Your task to perform on an android device: make emails show in primary in the gmail app Image 0: 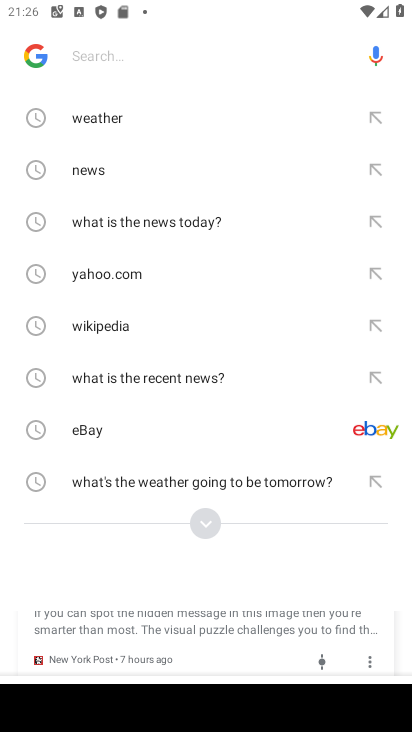
Step 0: press home button
Your task to perform on an android device: make emails show in primary in the gmail app Image 1: 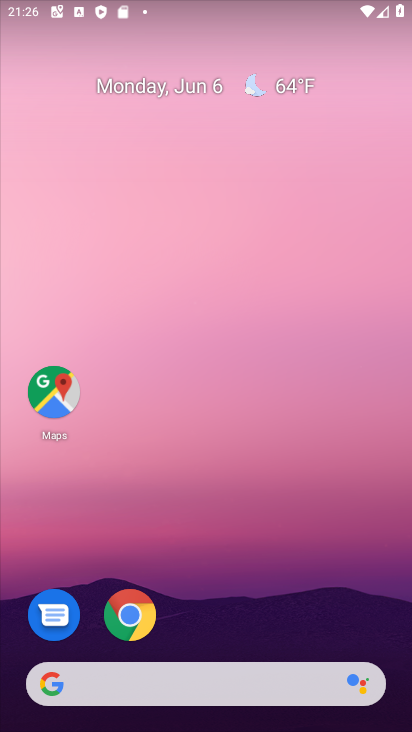
Step 1: drag from (387, 689) to (396, 172)
Your task to perform on an android device: make emails show in primary in the gmail app Image 2: 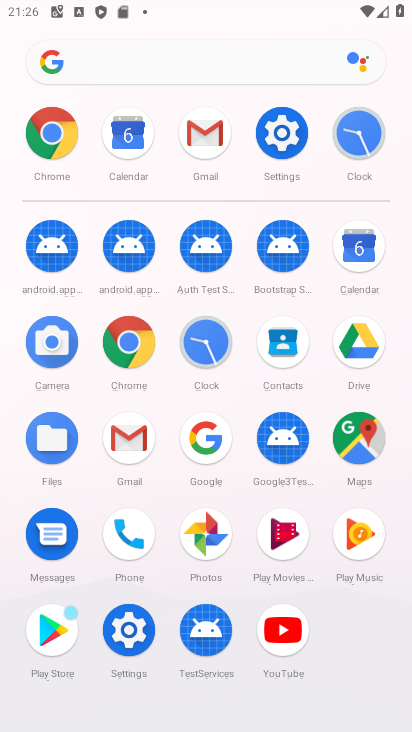
Step 2: click (193, 141)
Your task to perform on an android device: make emails show in primary in the gmail app Image 3: 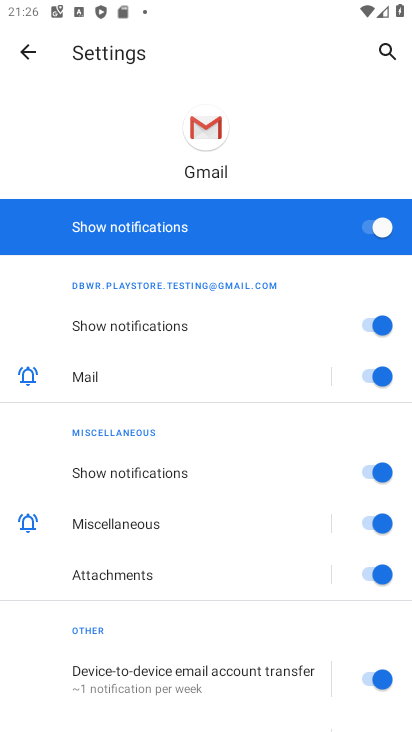
Step 3: drag from (267, 495) to (256, 271)
Your task to perform on an android device: make emails show in primary in the gmail app Image 4: 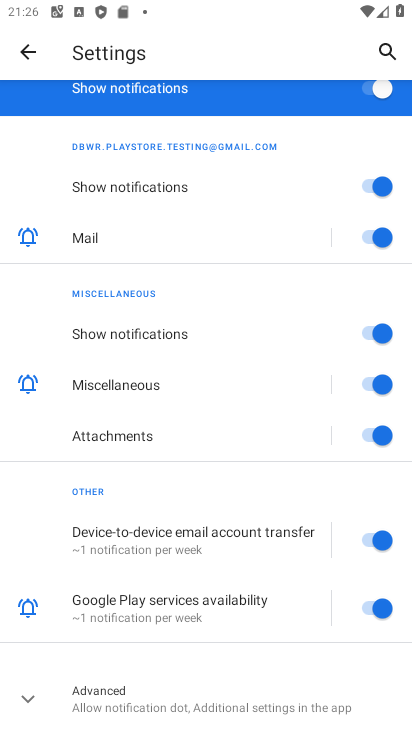
Step 4: drag from (268, 222) to (304, 623)
Your task to perform on an android device: make emails show in primary in the gmail app Image 5: 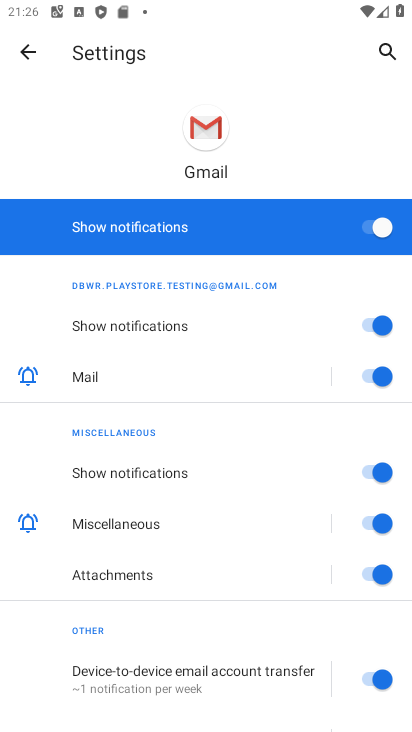
Step 5: click (22, 52)
Your task to perform on an android device: make emails show in primary in the gmail app Image 6: 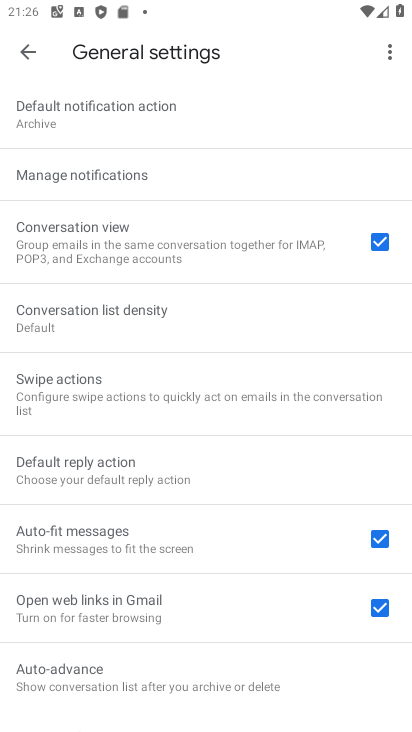
Step 6: click (33, 54)
Your task to perform on an android device: make emails show in primary in the gmail app Image 7: 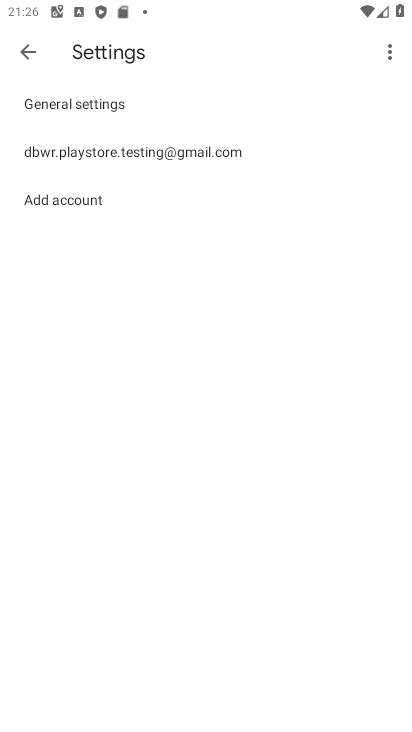
Step 7: click (95, 152)
Your task to perform on an android device: make emails show in primary in the gmail app Image 8: 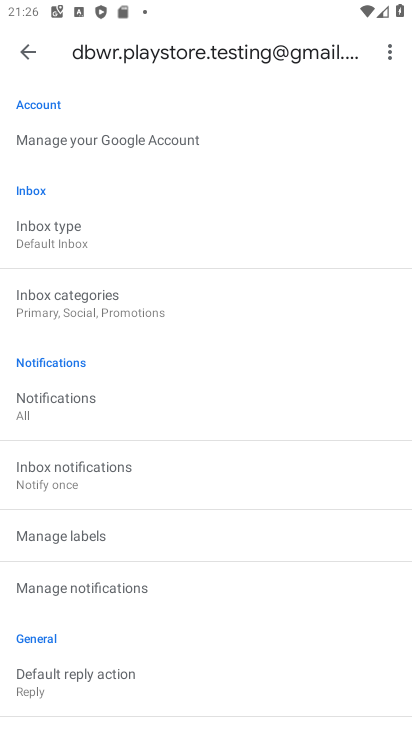
Step 8: click (68, 313)
Your task to perform on an android device: make emails show in primary in the gmail app Image 9: 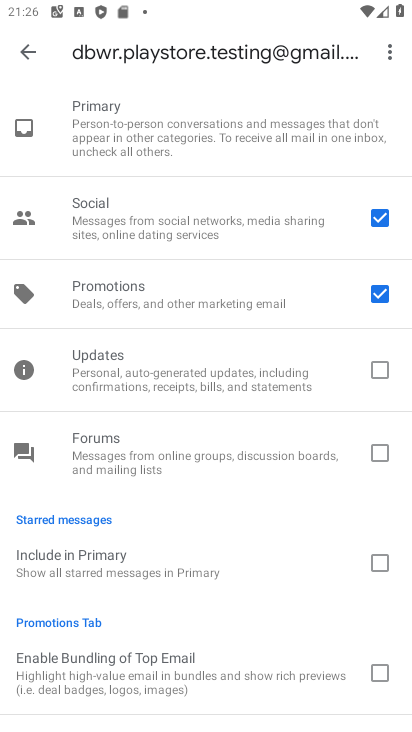
Step 9: click (378, 290)
Your task to perform on an android device: make emails show in primary in the gmail app Image 10: 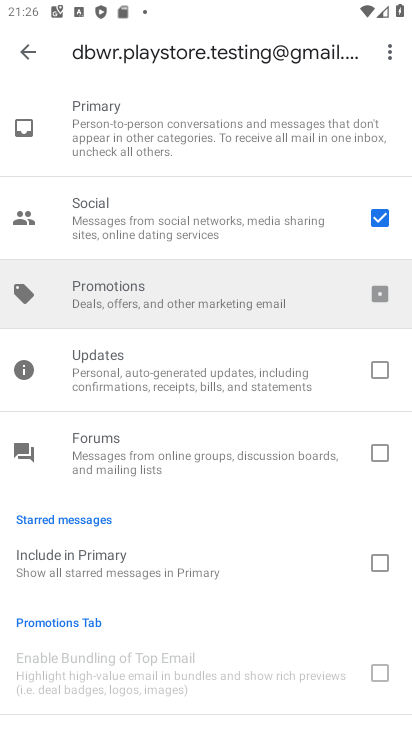
Step 10: click (377, 223)
Your task to perform on an android device: make emails show in primary in the gmail app Image 11: 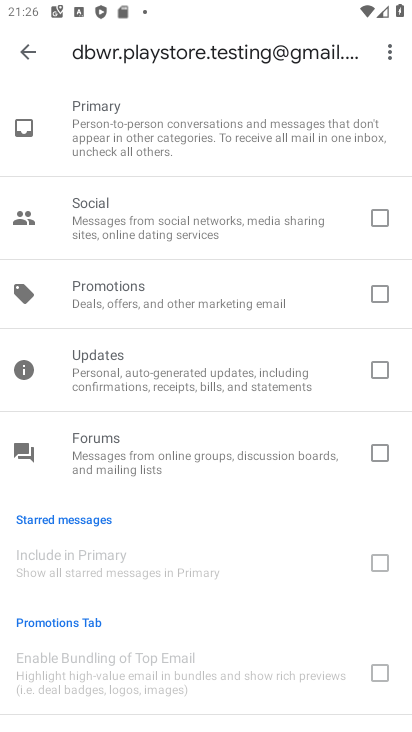
Step 11: click (27, 56)
Your task to perform on an android device: make emails show in primary in the gmail app Image 12: 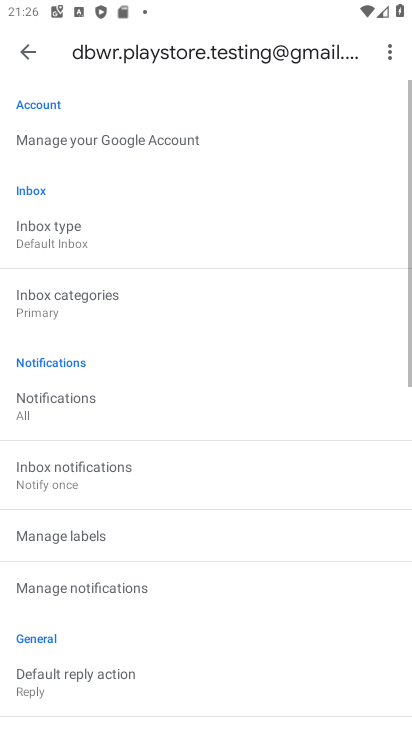
Step 12: task complete